Your task to perform on an android device: Go to Wikipedia Image 0: 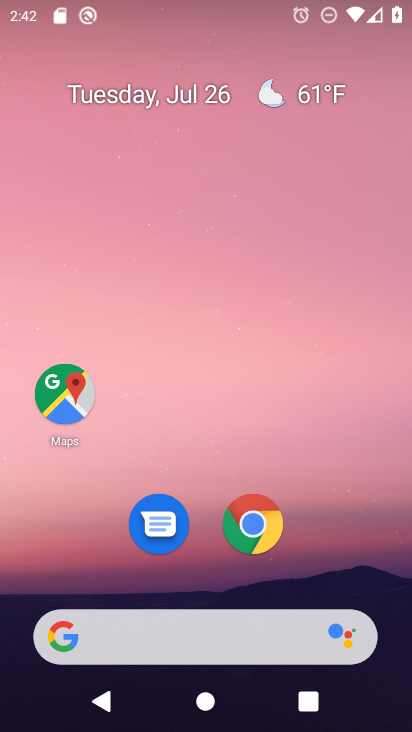
Step 0: press home button
Your task to perform on an android device: Go to Wikipedia Image 1: 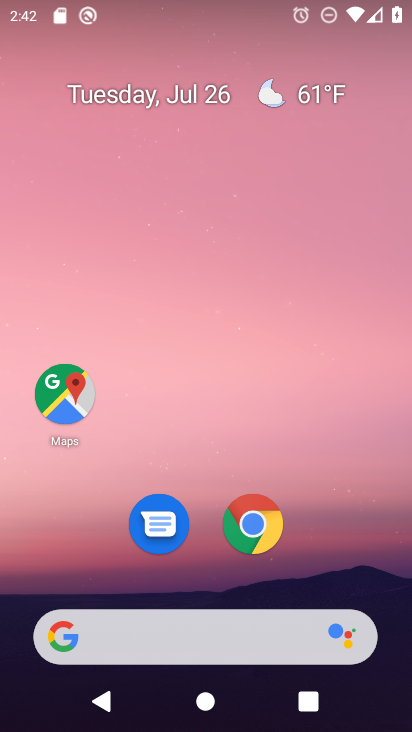
Step 1: click (234, 523)
Your task to perform on an android device: Go to Wikipedia Image 2: 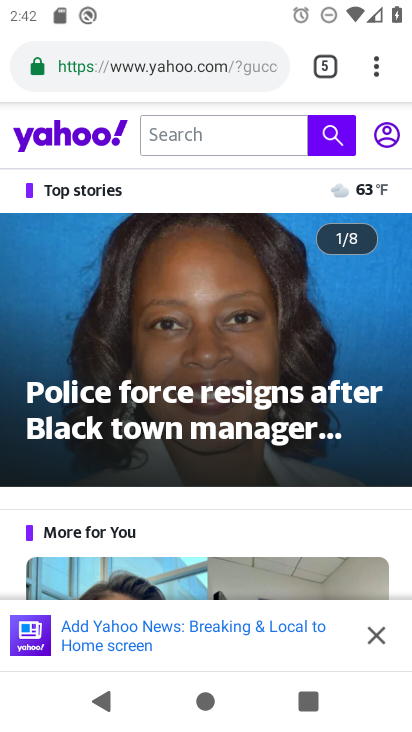
Step 2: drag from (373, 64) to (232, 130)
Your task to perform on an android device: Go to Wikipedia Image 3: 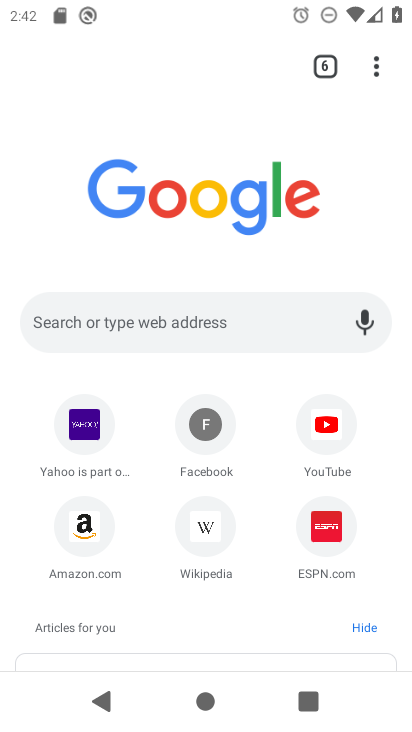
Step 3: click (200, 142)
Your task to perform on an android device: Go to Wikipedia Image 4: 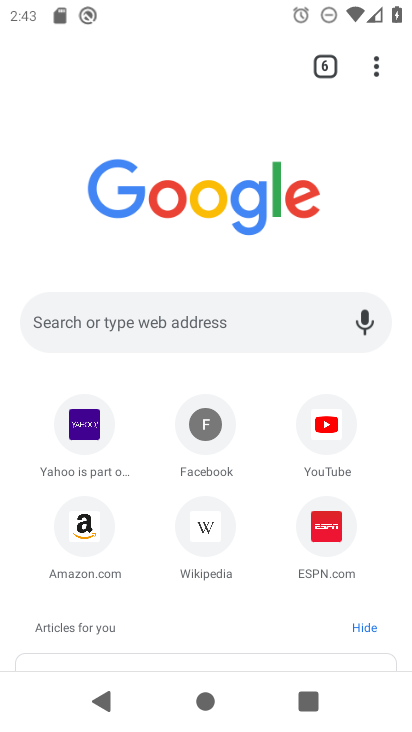
Step 4: click (213, 530)
Your task to perform on an android device: Go to Wikipedia Image 5: 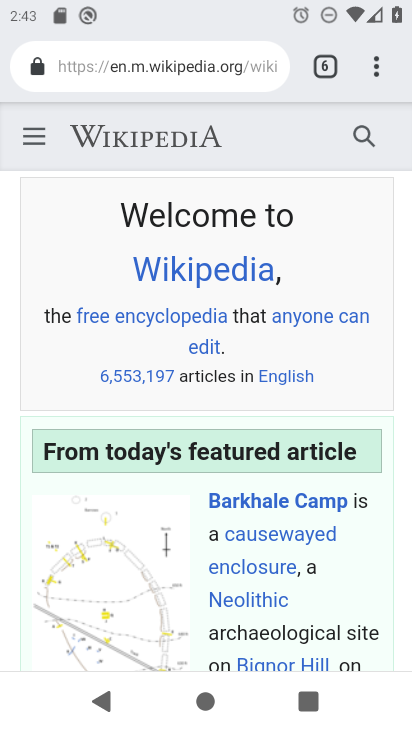
Step 5: task complete